Your task to perform on an android device: toggle notifications settings in the gmail app Image 0: 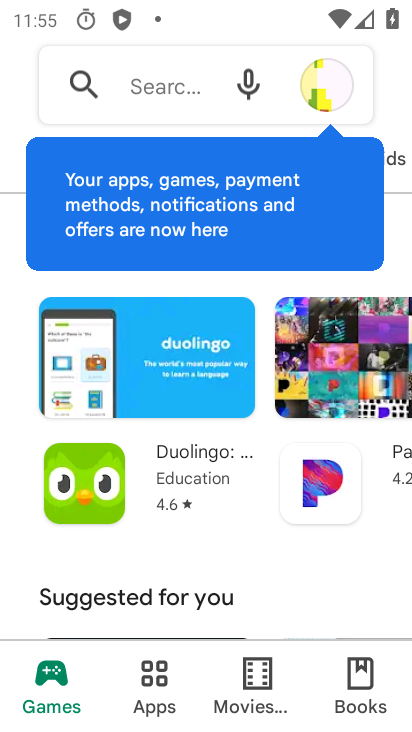
Step 0: press home button
Your task to perform on an android device: toggle notifications settings in the gmail app Image 1: 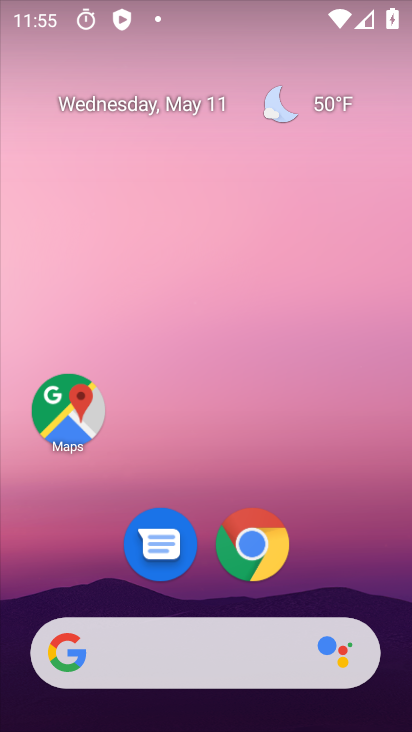
Step 1: drag from (165, 628) to (294, 129)
Your task to perform on an android device: toggle notifications settings in the gmail app Image 2: 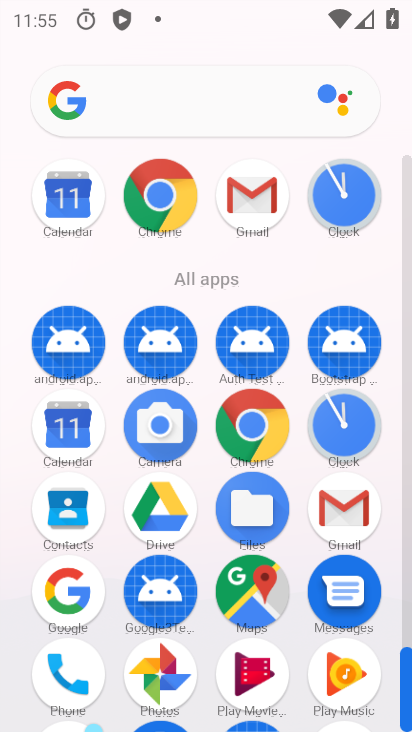
Step 2: click (326, 506)
Your task to perform on an android device: toggle notifications settings in the gmail app Image 3: 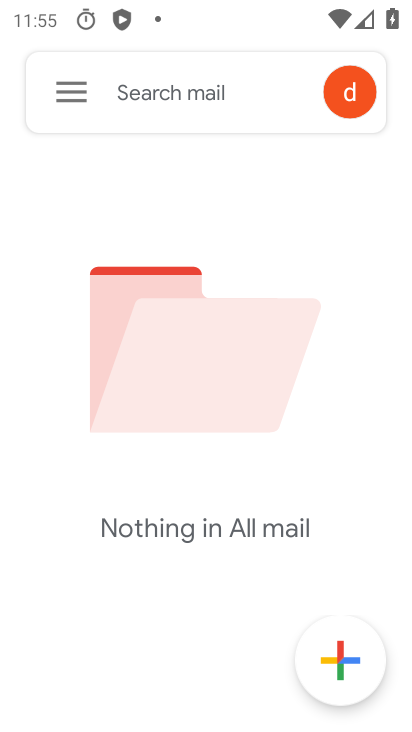
Step 3: click (72, 102)
Your task to perform on an android device: toggle notifications settings in the gmail app Image 4: 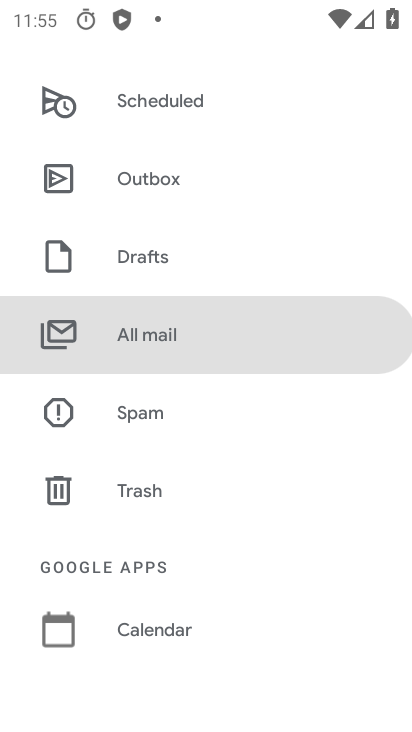
Step 4: drag from (138, 659) to (127, 95)
Your task to perform on an android device: toggle notifications settings in the gmail app Image 5: 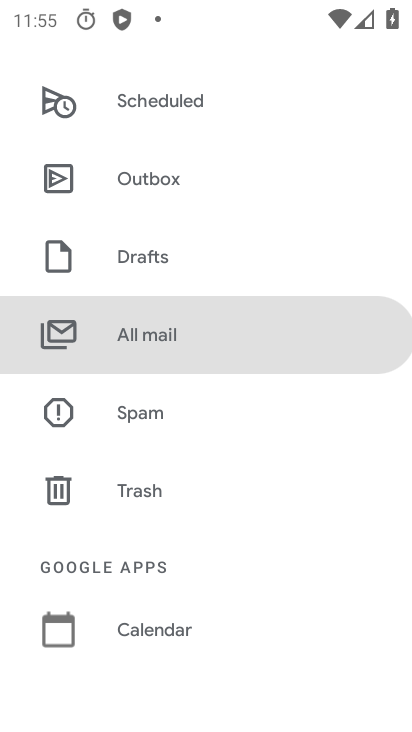
Step 5: drag from (176, 584) to (122, 58)
Your task to perform on an android device: toggle notifications settings in the gmail app Image 6: 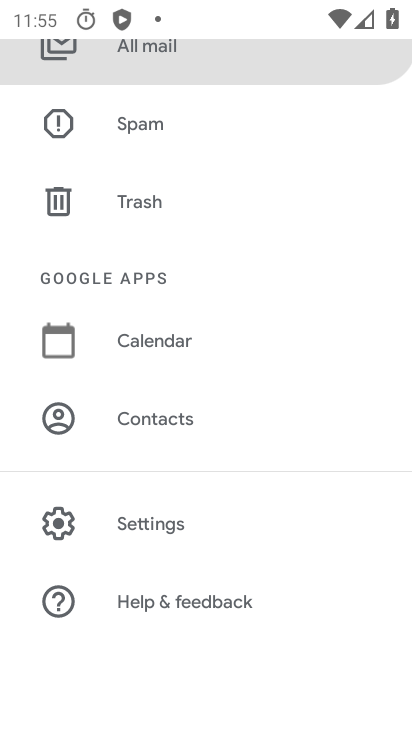
Step 6: click (110, 520)
Your task to perform on an android device: toggle notifications settings in the gmail app Image 7: 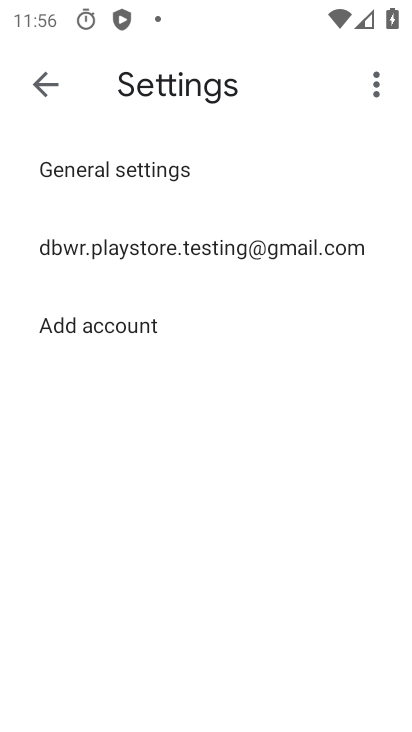
Step 7: click (166, 242)
Your task to perform on an android device: toggle notifications settings in the gmail app Image 8: 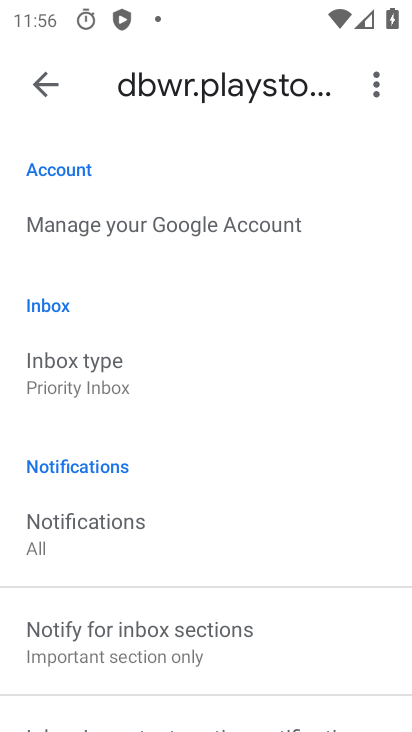
Step 8: drag from (138, 589) to (138, 196)
Your task to perform on an android device: toggle notifications settings in the gmail app Image 9: 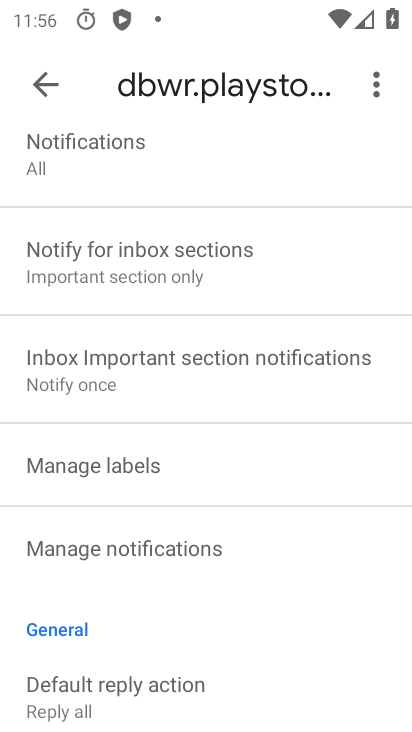
Step 9: click (191, 565)
Your task to perform on an android device: toggle notifications settings in the gmail app Image 10: 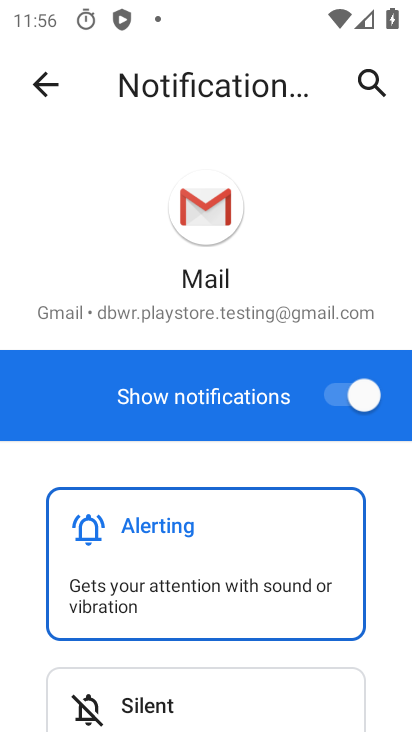
Step 10: click (352, 404)
Your task to perform on an android device: toggle notifications settings in the gmail app Image 11: 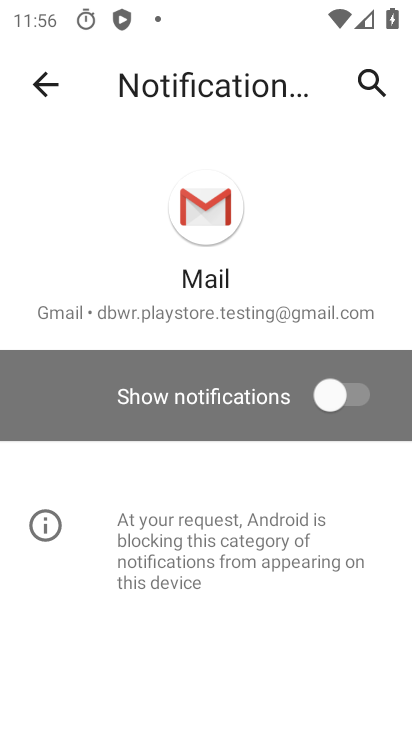
Step 11: task complete